Your task to perform on an android device: What's the weather? Image 0: 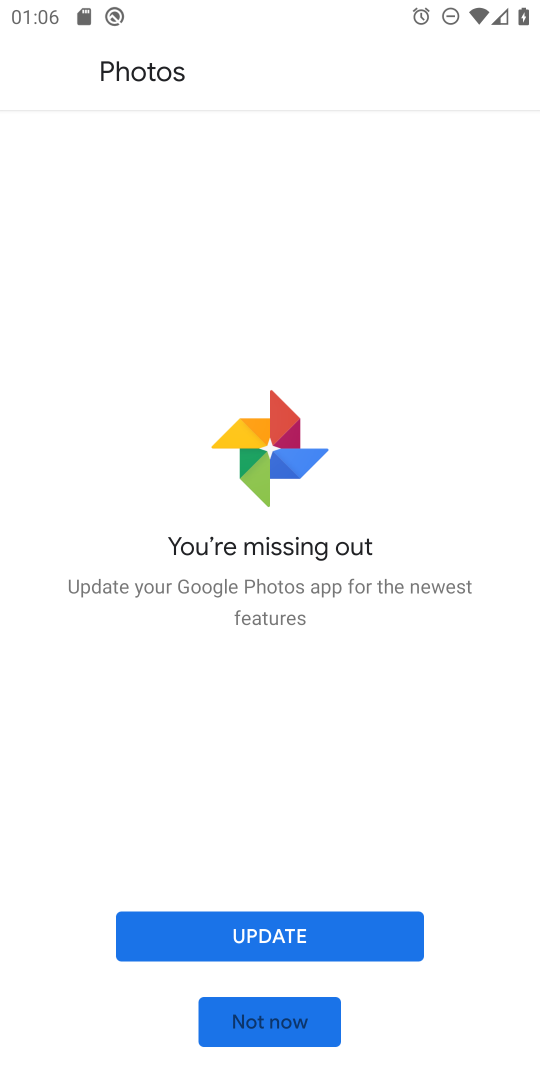
Step 0: press home button
Your task to perform on an android device: What's the weather? Image 1: 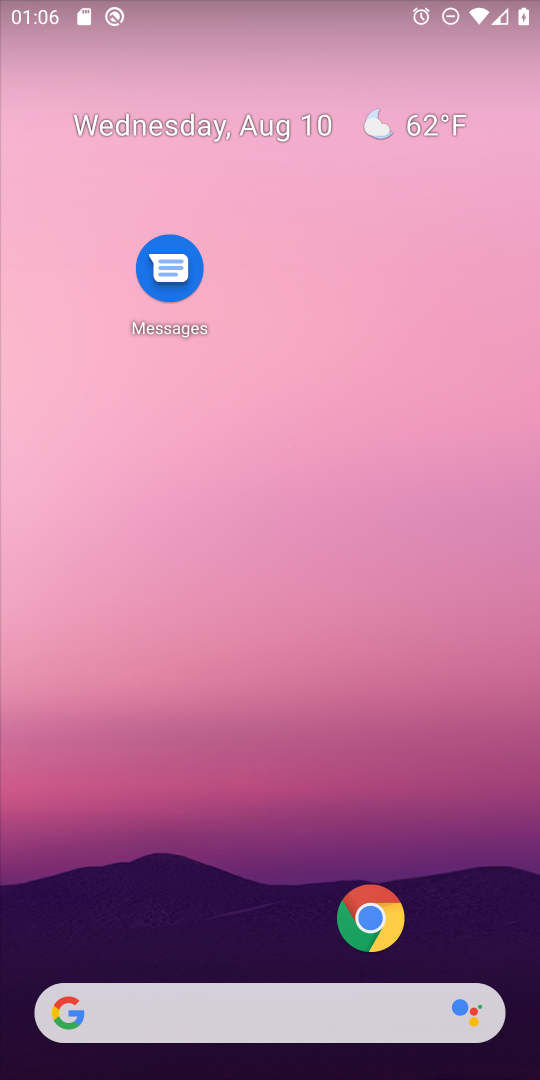
Step 1: click (423, 126)
Your task to perform on an android device: What's the weather? Image 2: 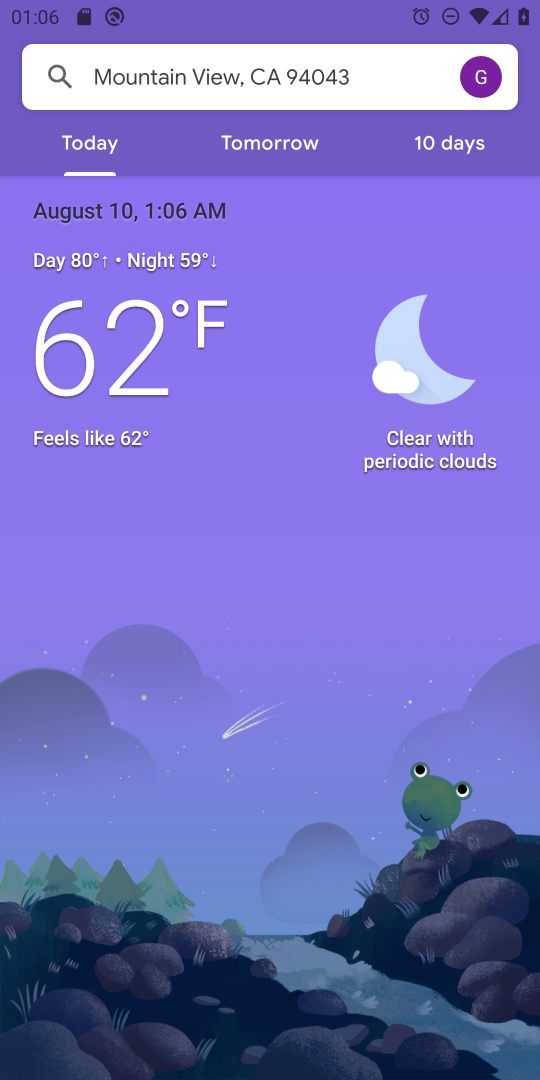
Step 2: task complete